Your task to perform on an android device: Open calendar and show me the second week of next month Image 0: 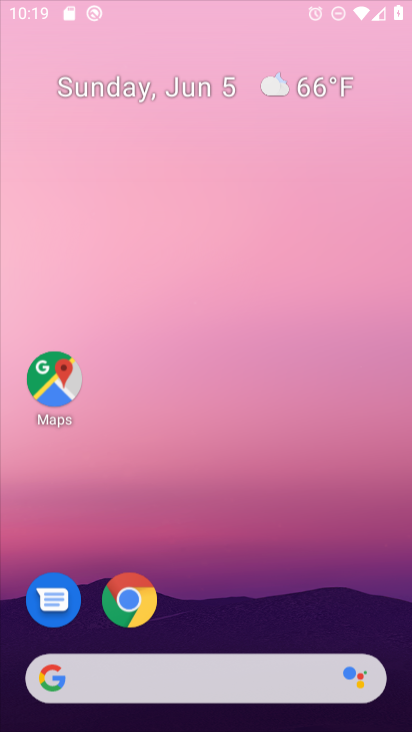
Step 0: click (300, 37)
Your task to perform on an android device: Open calendar and show me the second week of next month Image 1: 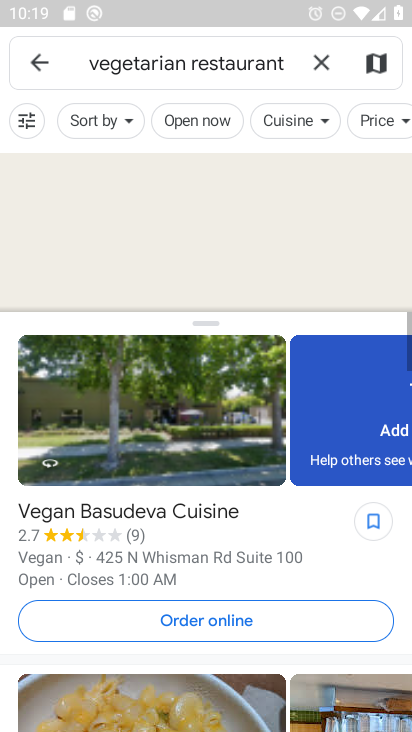
Step 1: drag from (327, 599) to (323, 140)
Your task to perform on an android device: Open calendar and show me the second week of next month Image 2: 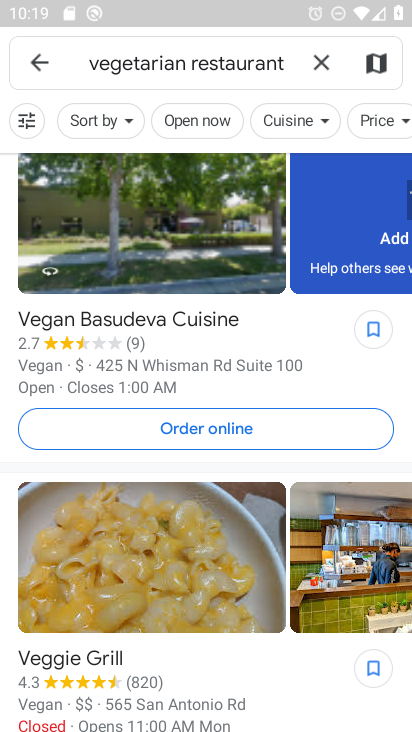
Step 2: press home button
Your task to perform on an android device: Open calendar and show me the second week of next month Image 3: 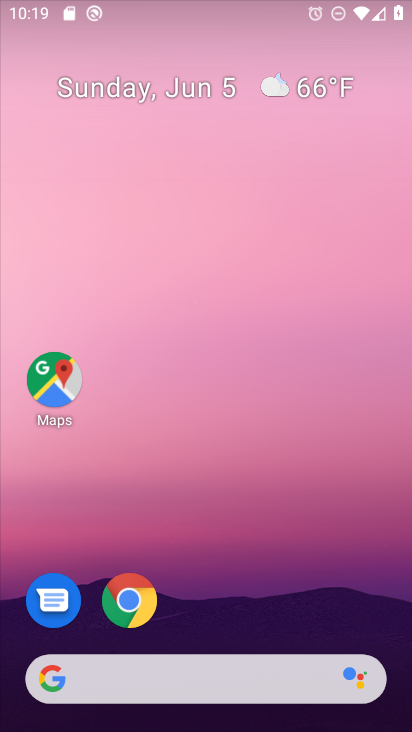
Step 3: drag from (402, 641) to (287, 47)
Your task to perform on an android device: Open calendar and show me the second week of next month Image 4: 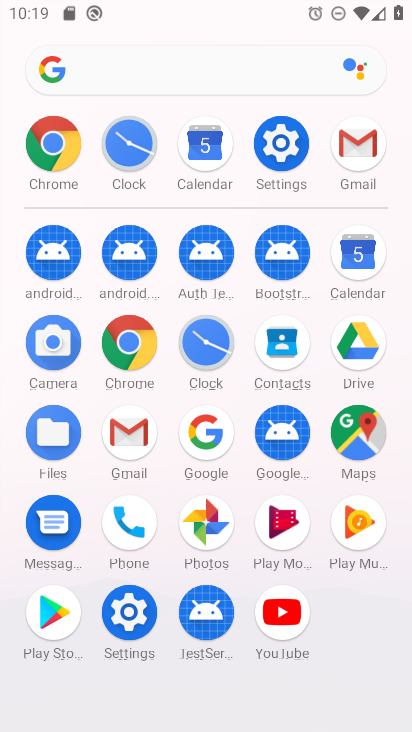
Step 4: click (375, 265)
Your task to perform on an android device: Open calendar and show me the second week of next month Image 5: 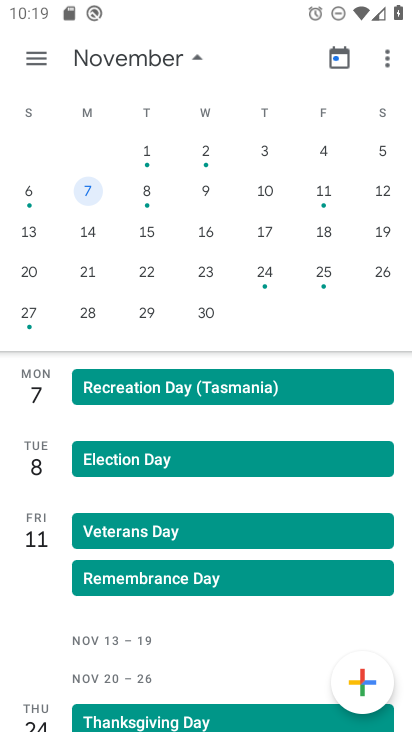
Step 5: drag from (366, 203) to (6, 245)
Your task to perform on an android device: Open calendar and show me the second week of next month Image 6: 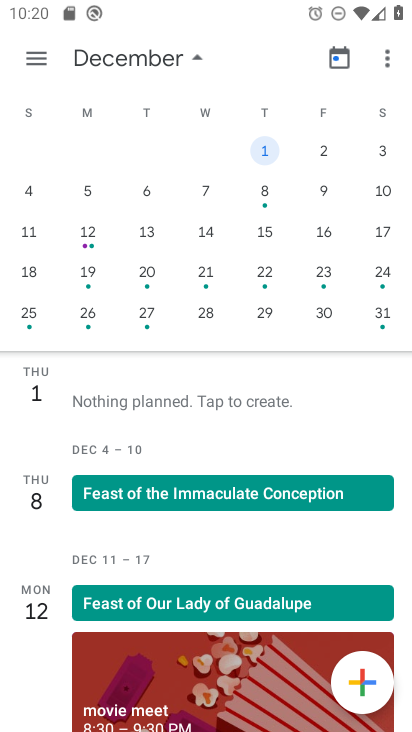
Step 6: click (83, 231)
Your task to perform on an android device: Open calendar and show me the second week of next month Image 7: 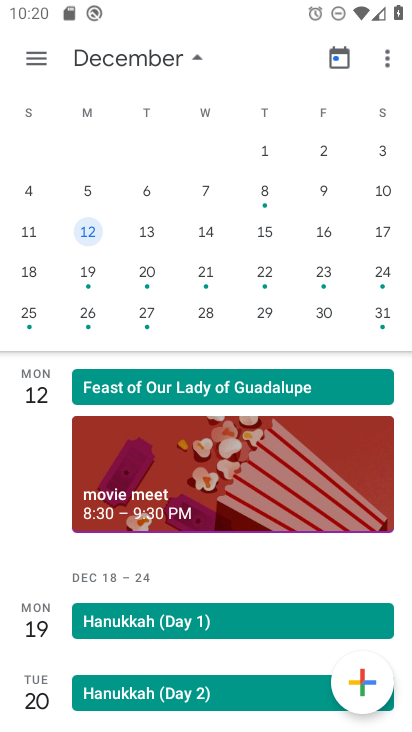
Step 7: task complete